Your task to perform on an android device: Is it going to rain today? Image 0: 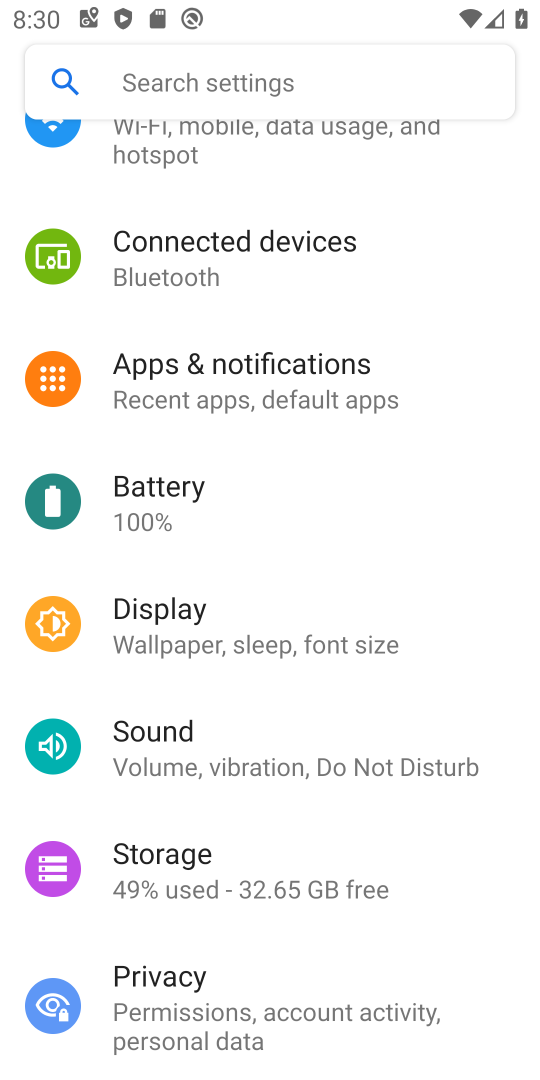
Step 0: press home button
Your task to perform on an android device: Is it going to rain today? Image 1: 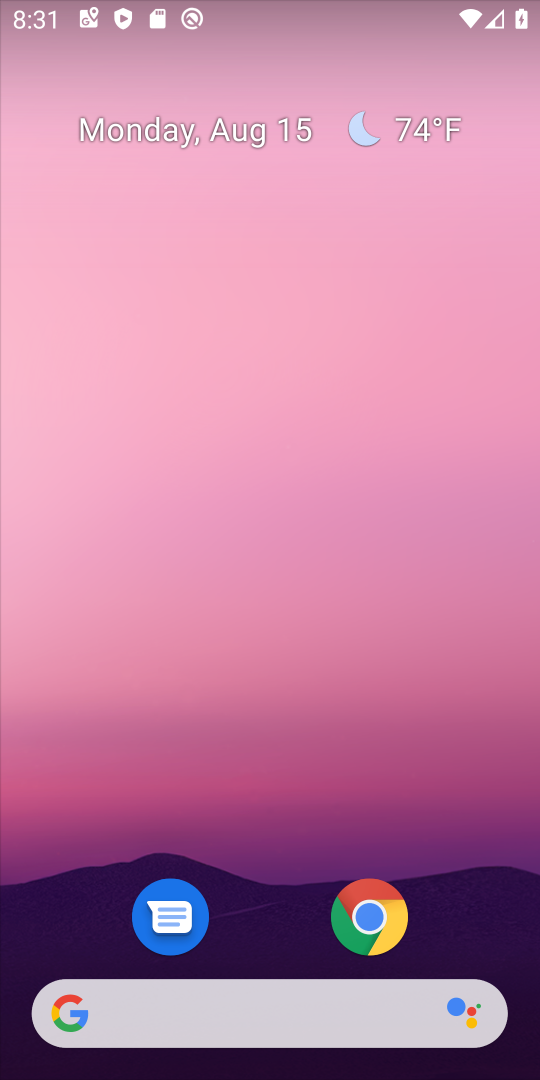
Step 1: click (427, 126)
Your task to perform on an android device: Is it going to rain today? Image 2: 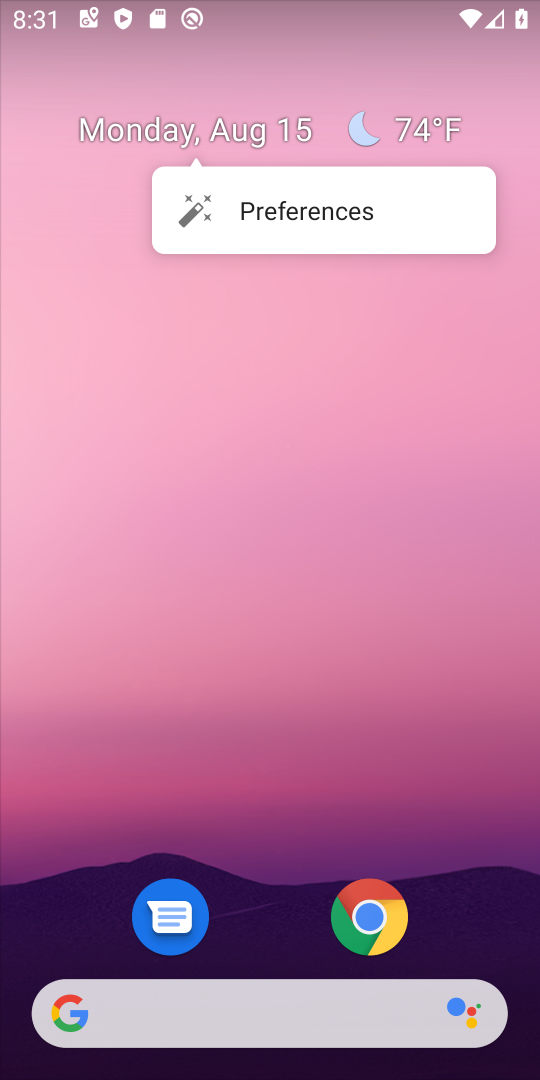
Step 2: click (422, 135)
Your task to perform on an android device: Is it going to rain today? Image 3: 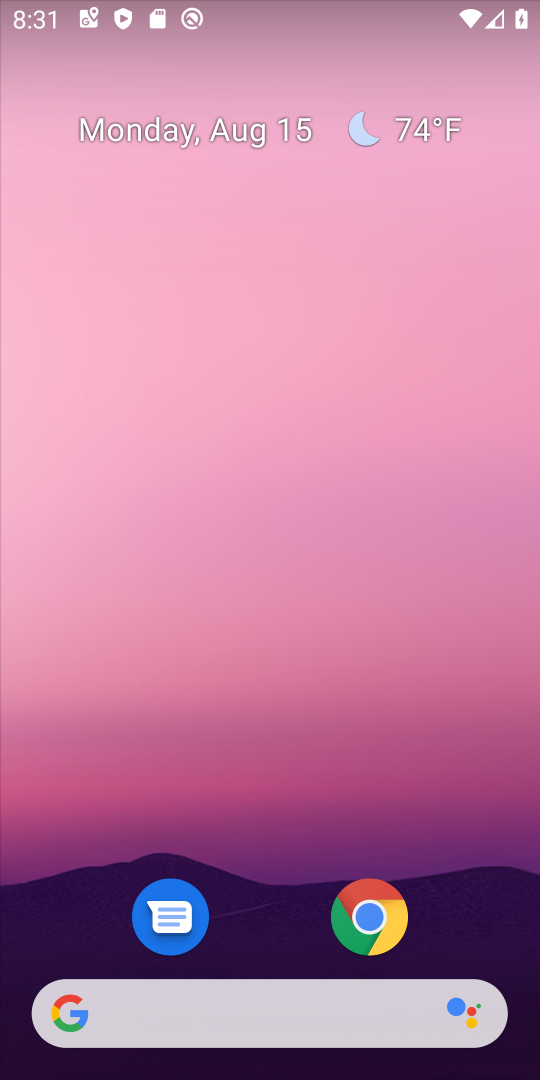
Step 3: click (422, 135)
Your task to perform on an android device: Is it going to rain today? Image 4: 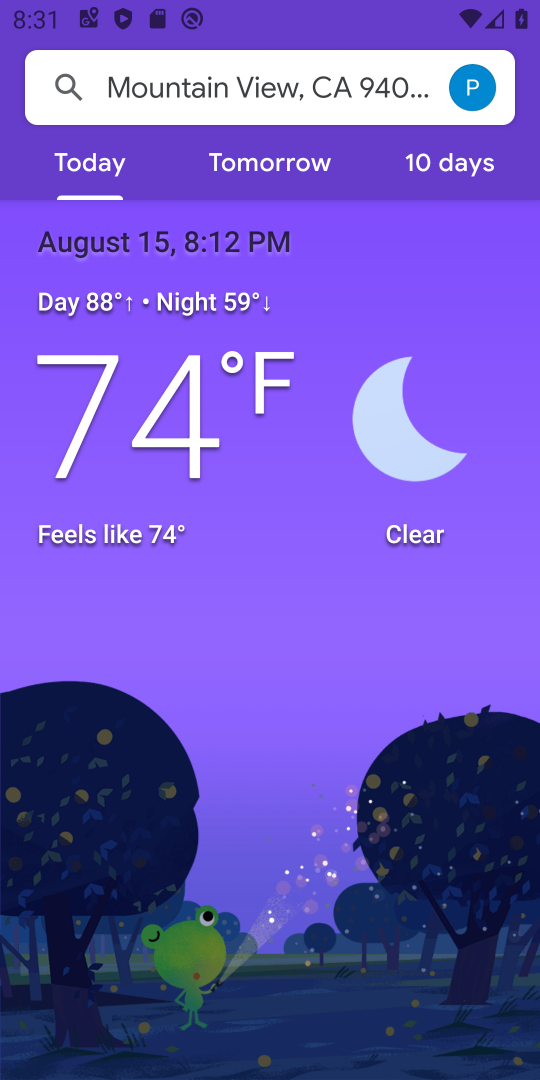
Step 4: task complete